Your task to perform on an android device: Go to calendar. Show me events next week Image 0: 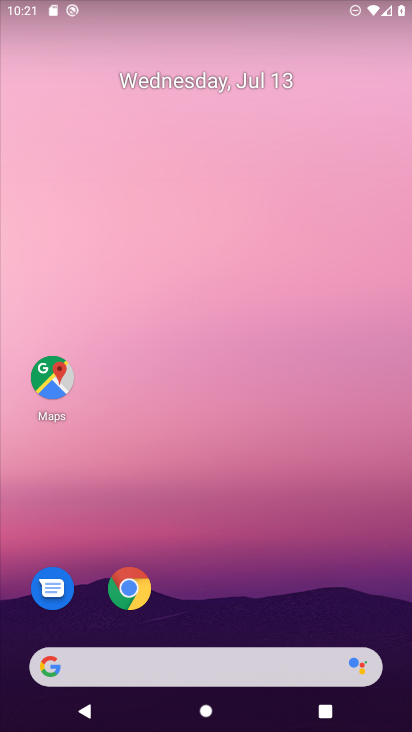
Step 0: drag from (193, 648) to (214, 141)
Your task to perform on an android device: Go to calendar. Show me events next week Image 1: 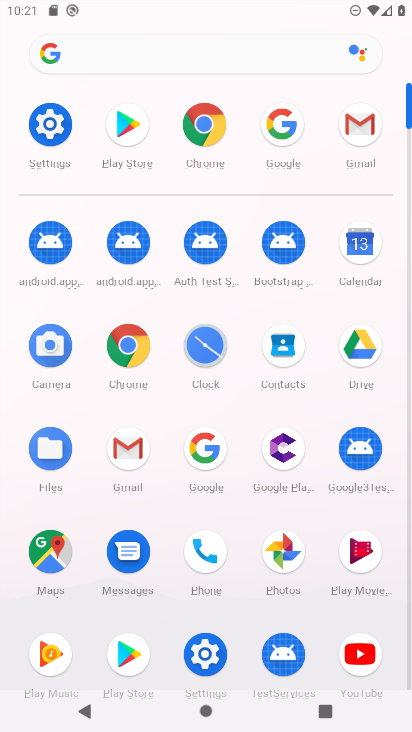
Step 1: click (362, 246)
Your task to perform on an android device: Go to calendar. Show me events next week Image 2: 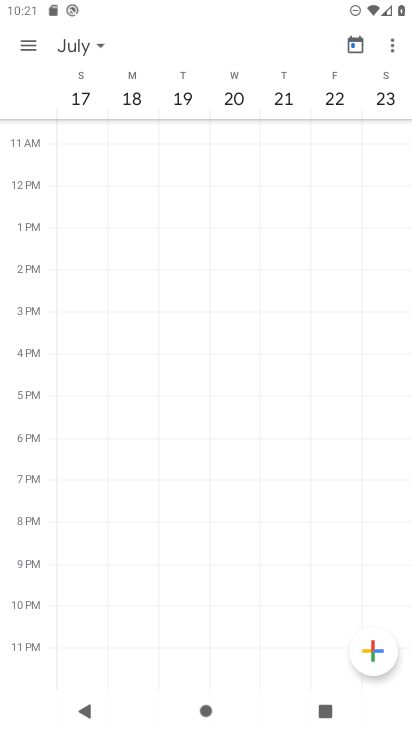
Step 2: task complete